Your task to perform on an android device: Open CNN.com Image 0: 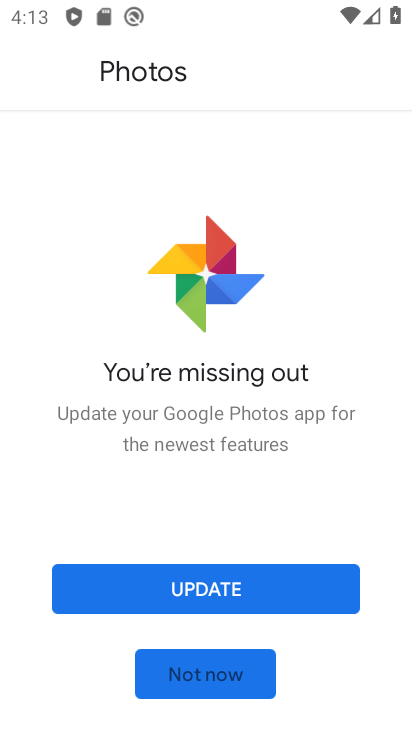
Step 0: press home button
Your task to perform on an android device: Open CNN.com Image 1: 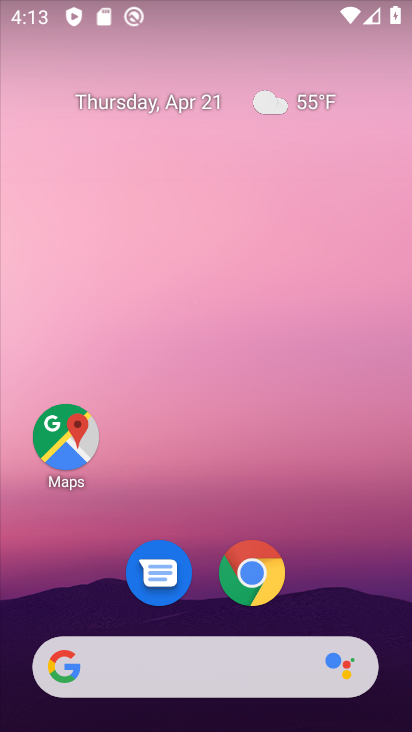
Step 1: click (249, 573)
Your task to perform on an android device: Open CNN.com Image 2: 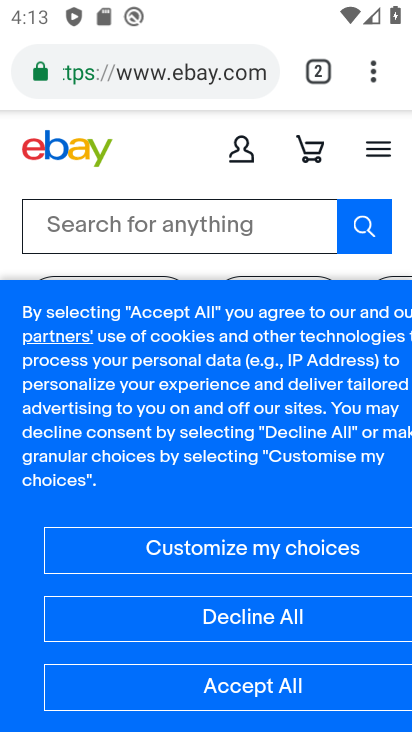
Step 2: click (150, 69)
Your task to perform on an android device: Open CNN.com Image 3: 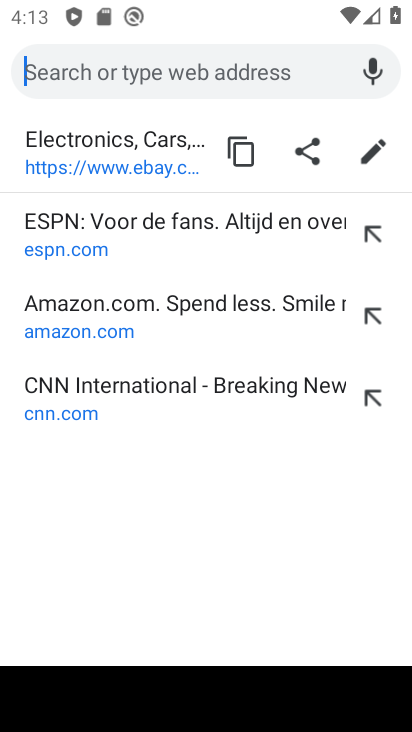
Step 3: type "cnn.com"
Your task to perform on an android device: Open CNN.com Image 4: 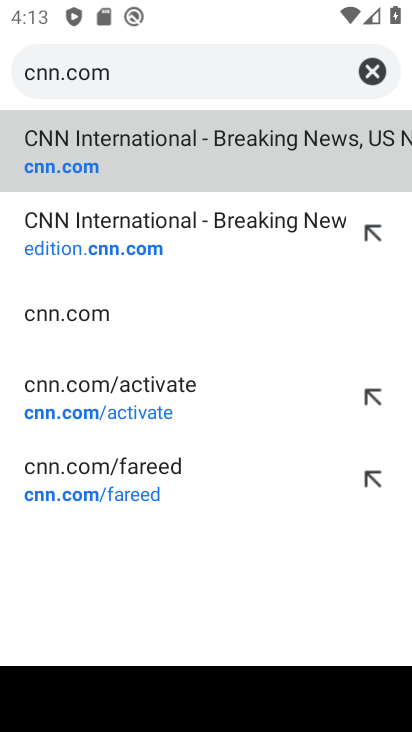
Step 4: click (72, 146)
Your task to perform on an android device: Open CNN.com Image 5: 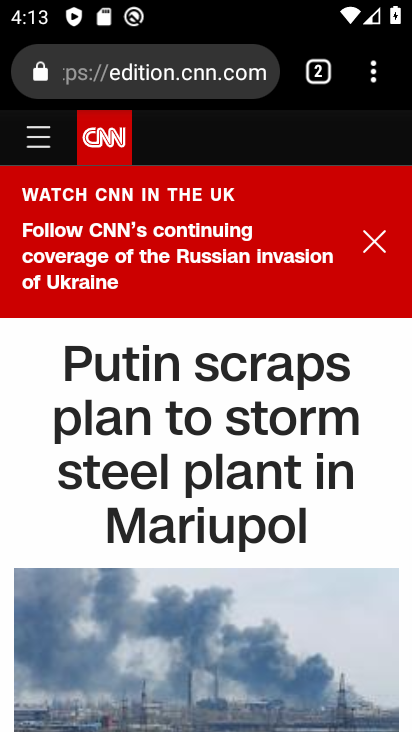
Step 5: task complete